Your task to perform on an android device: turn off data saver in the chrome app Image 0: 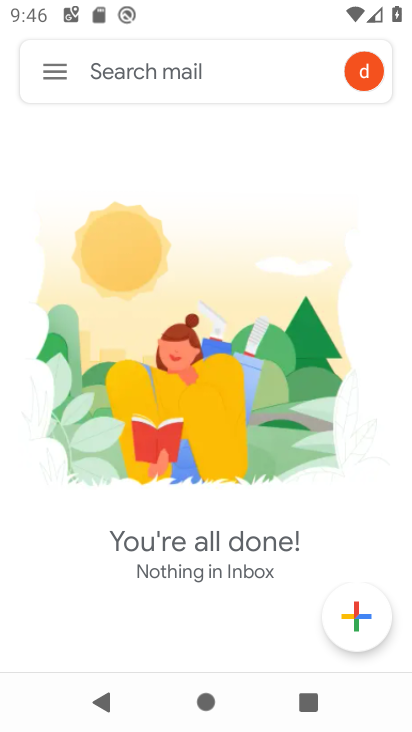
Step 0: press home button
Your task to perform on an android device: turn off data saver in the chrome app Image 1: 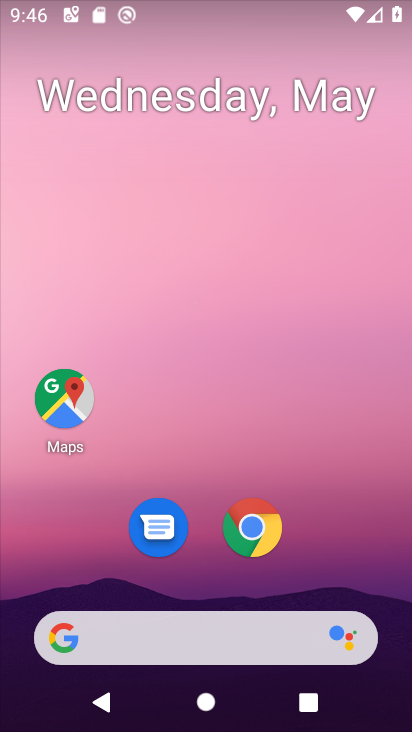
Step 1: click (257, 532)
Your task to perform on an android device: turn off data saver in the chrome app Image 2: 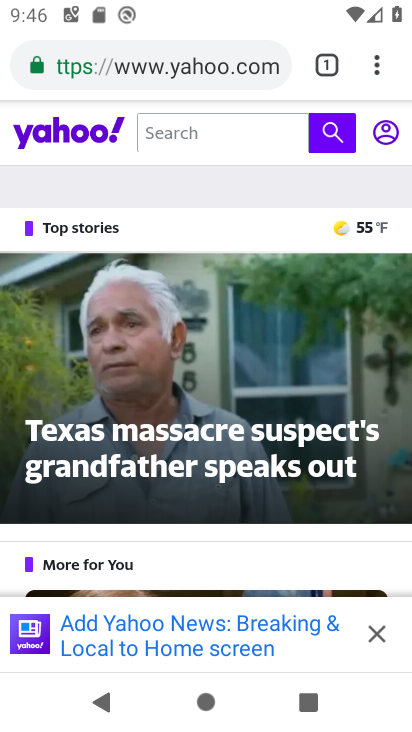
Step 2: click (369, 58)
Your task to perform on an android device: turn off data saver in the chrome app Image 3: 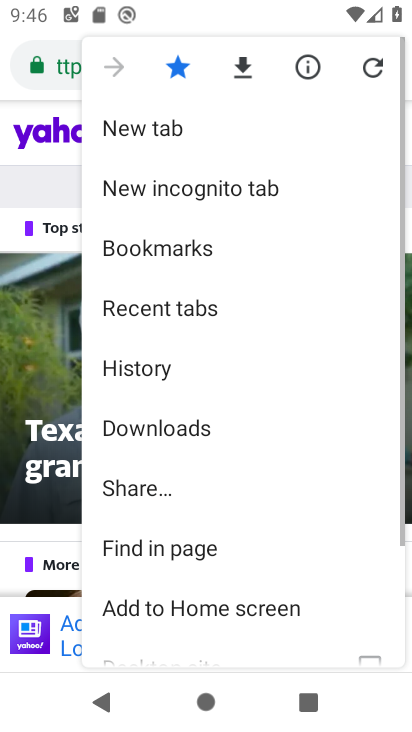
Step 3: drag from (201, 577) to (252, 170)
Your task to perform on an android device: turn off data saver in the chrome app Image 4: 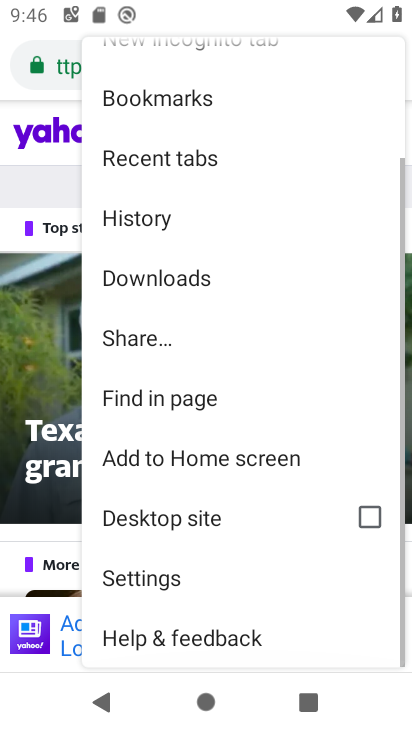
Step 4: click (181, 573)
Your task to perform on an android device: turn off data saver in the chrome app Image 5: 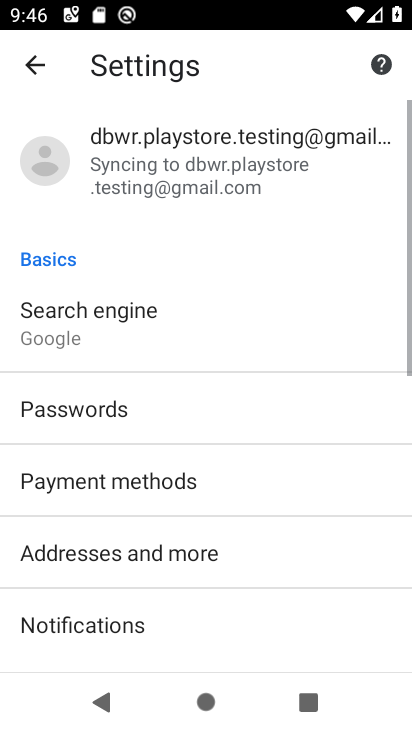
Step 5: drag from (252, 628) to (257, 99)
Your task to perform on an android device: turn off data saver in the chrome app Image 6: 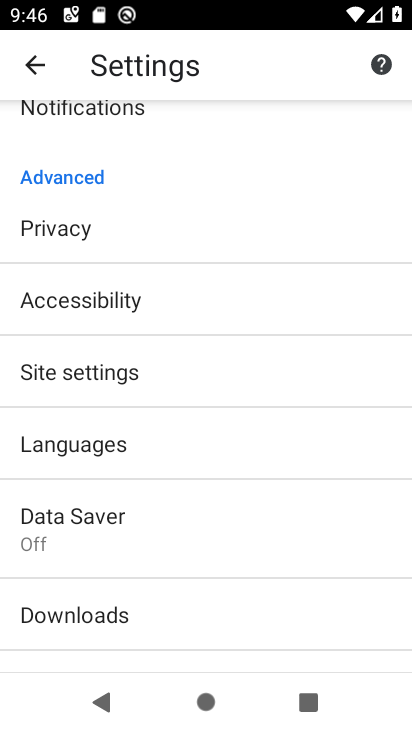
Step 6: click (78, 521)
Your task to perform on an android device: turn off data saver in the chrome app Image 7: 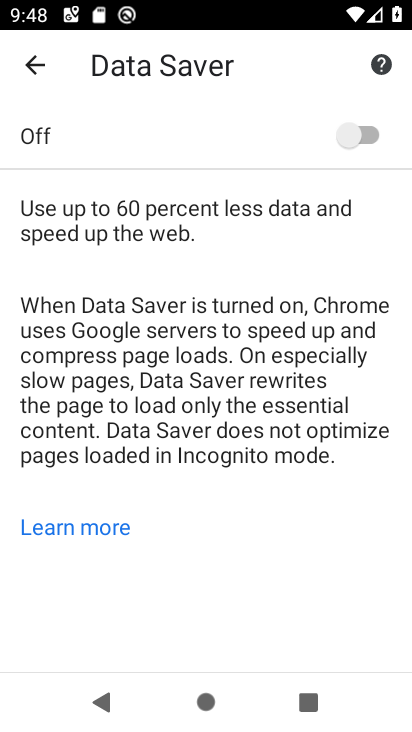
Step 7: task complete